Your task to perform on an android device: Open display settings Image 0: 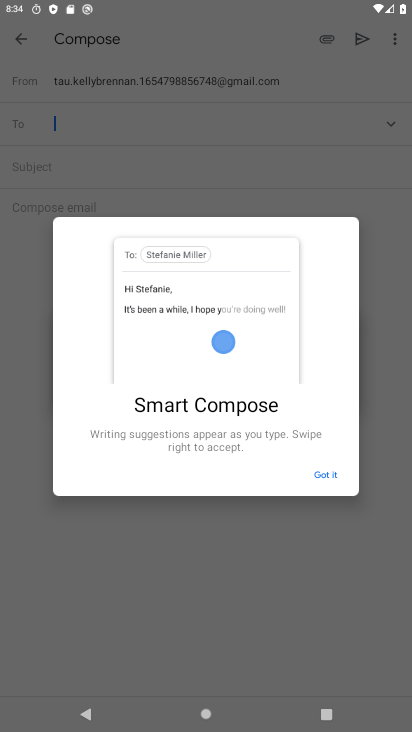
Step 0: click (319, 478)
Your task to perform on an android device: Open display settings Image 1: 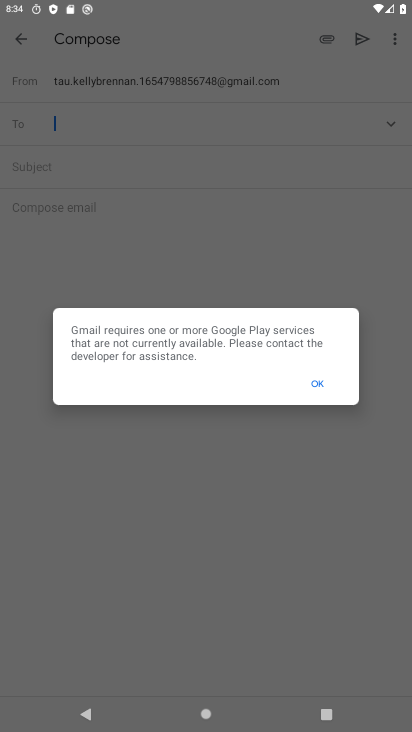
Step 1: press home button
Your task to perform on an android device: Open display settings Image 2: 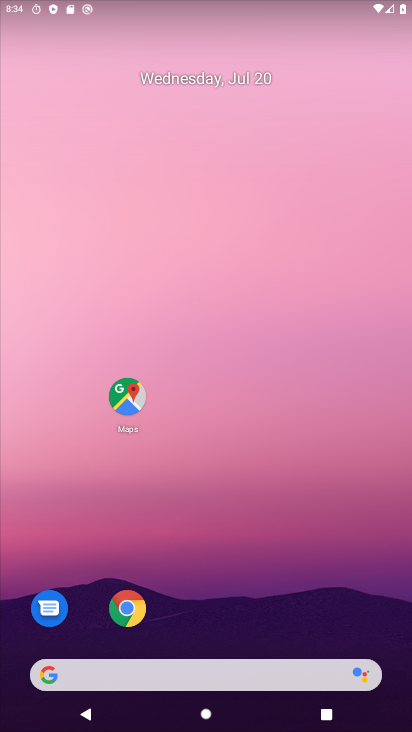
Step 2: drag from (193, 610) to (258, 141)
Your task to perform on an android device: Open display settings Image 3: 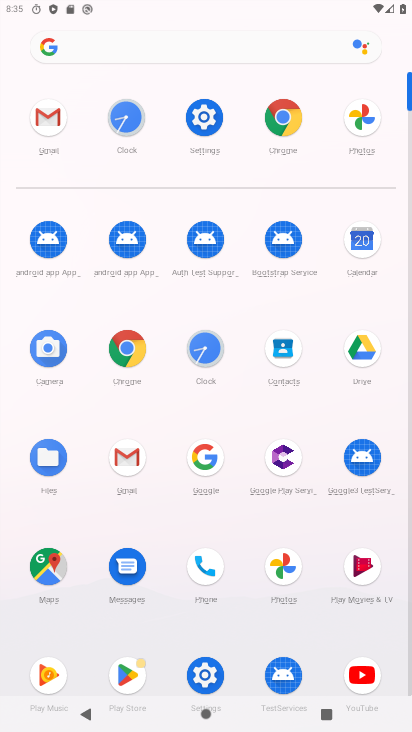
Step 3: click (209, 685)
Your task to perform on an android device: Open display settings Image 4: 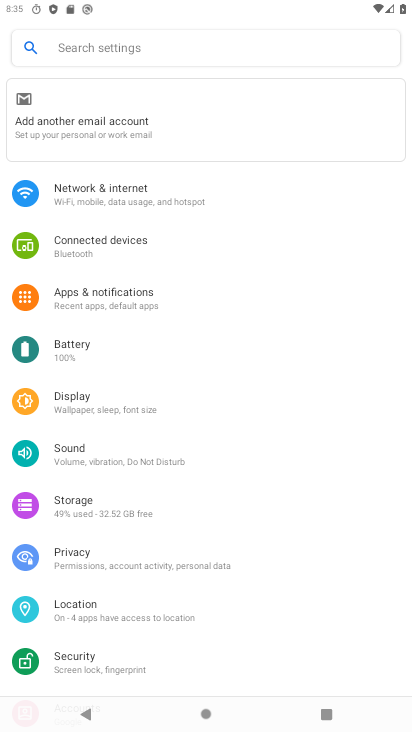
Step 4: click (118, 400)
Your task to perform on an android device: Open display settings Image 5: 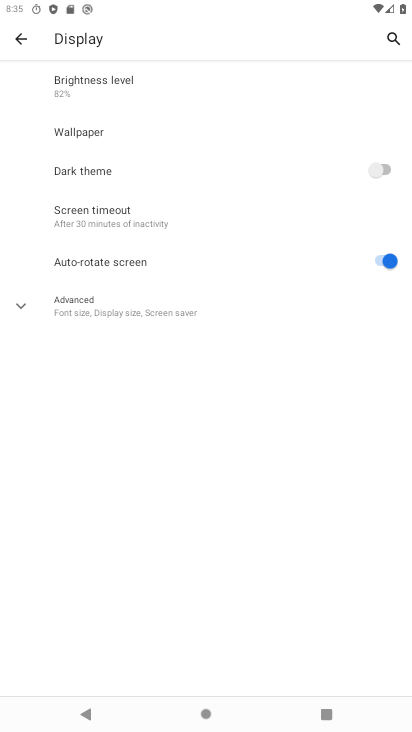
Step 5: task complete